Your task to perform on an android device: change keyboard looks Image 0: 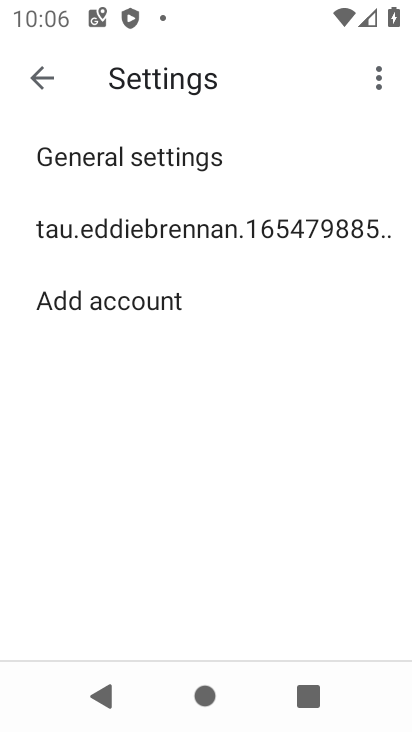
Step 0: press back button
Your task to perform on an android device: change keyboard looks Image 1: 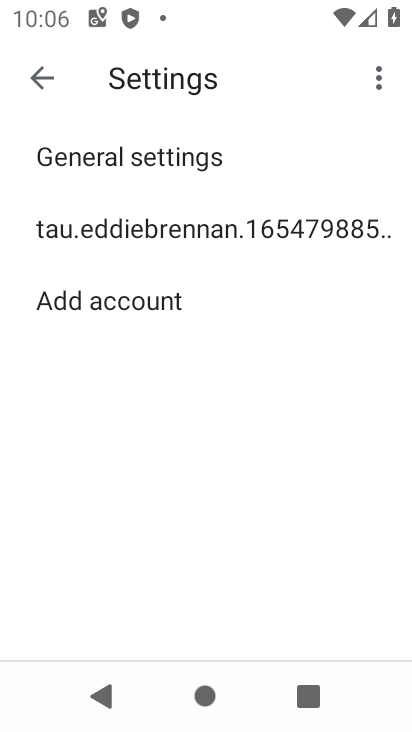
Step 1: press back button
Your task to perform on an android device: change keyboard looks Image 2: 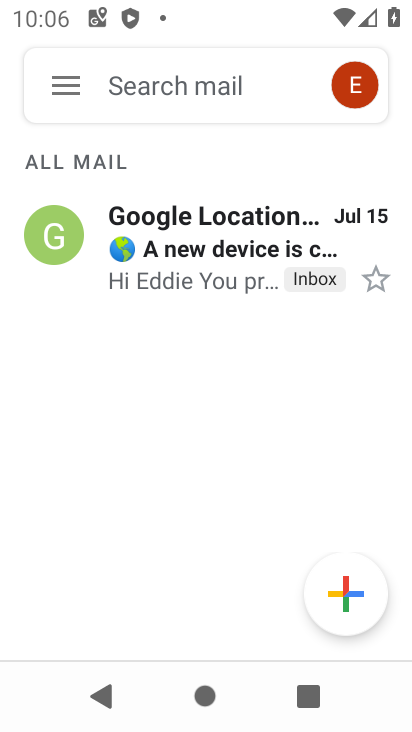
Step 2: press back button
Your task to perform on an android device: change keyboard looks Image 3: 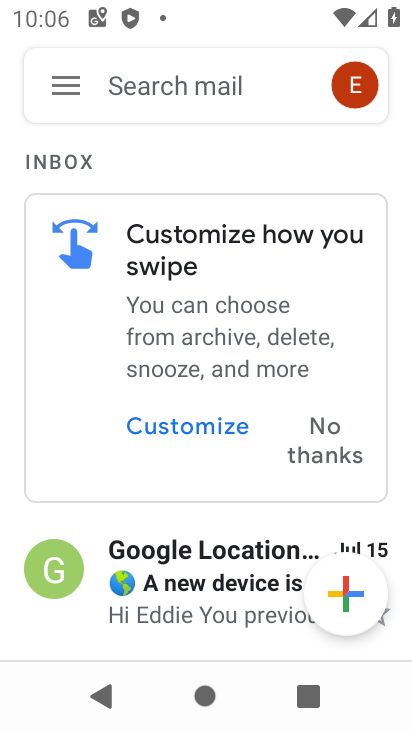
Step 3: press back button
Your task to perform on an android device: change keyboard looks Image 4: 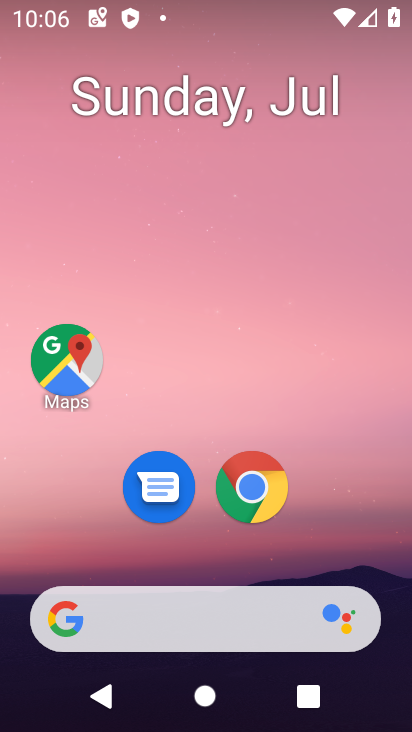
Step 4: drag from (101, 552) to (153, 65)
Your task to perform on an android device: change keyboard looks Image 5: 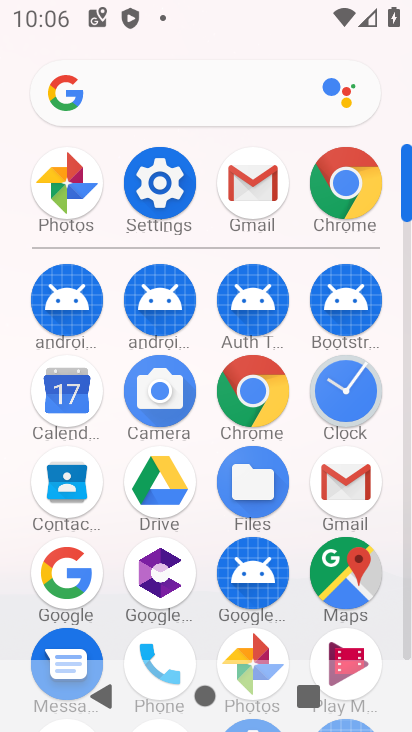
Step 5: click (135, 180)
Your task to perform on an android device: change keyboard looks Image 6: 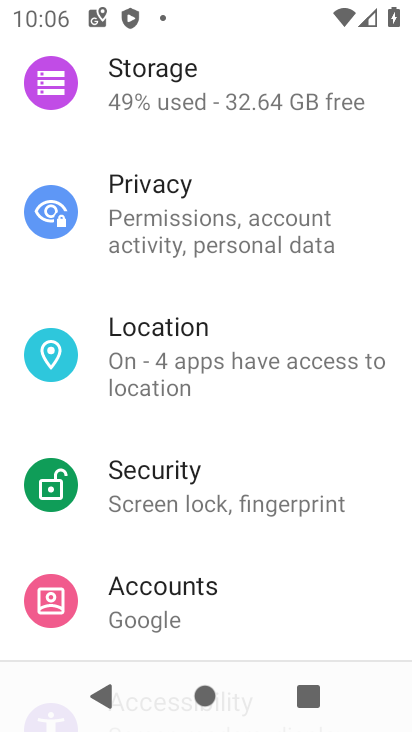
Step 6: drag from (194, 635) to (284, 3)
Your task to perform on an android device: change keyboard looks Image 7: 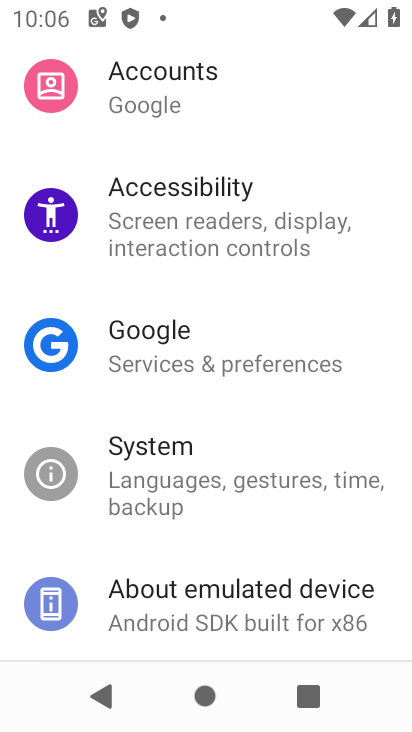
Step 7: drag from (184, 616) to (261, 20)
Your task to perform on an android device: change keyboard looks Image 8: 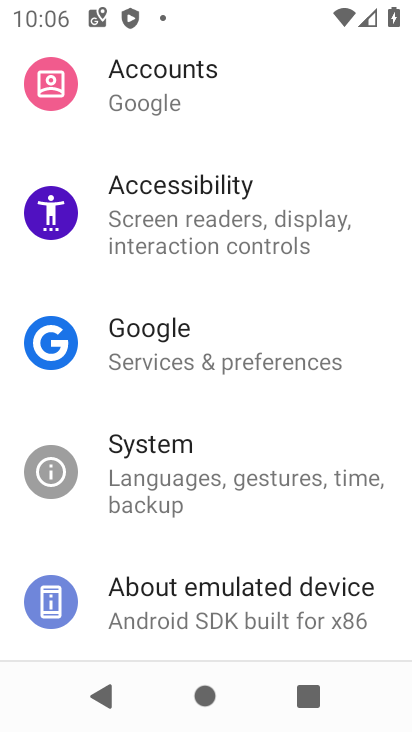
Step 8: click (146, 466)
Your task to perform on an android device: change keyboard looks Image 9: 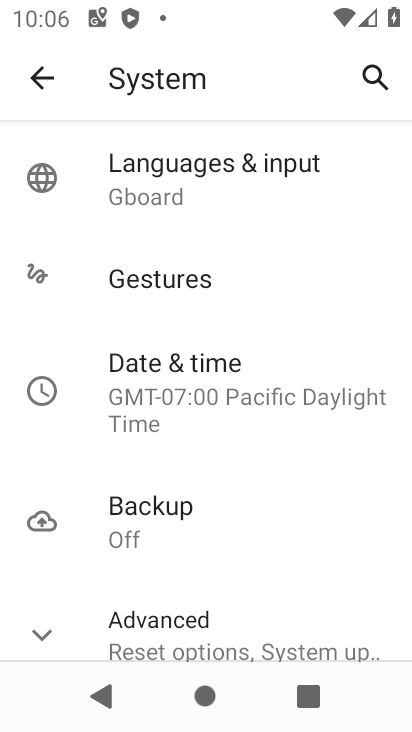
Step 9: click (181, 188)
Your task to perform on an android device: change keyboard looks Image 10: 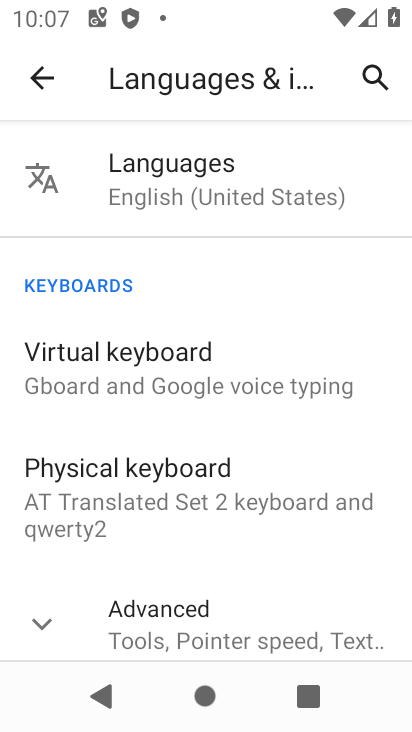
Step 10: click (146, 365)
Your task to perform on an android device: change keyboard looks Image 11: 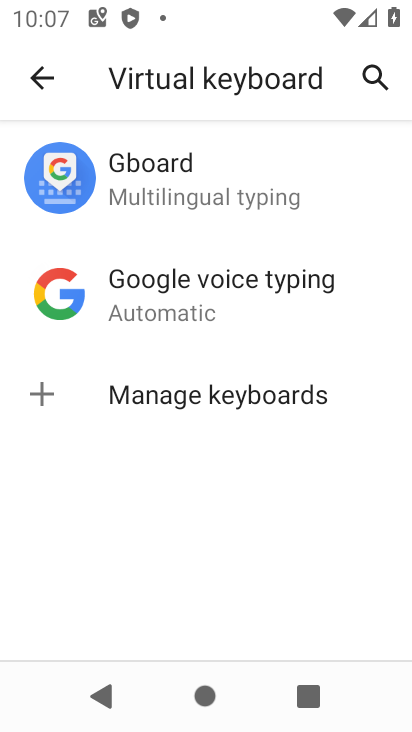
Step 11: click (166, 183)
Your task to perform on an android device: change keyboard looks Image 12: 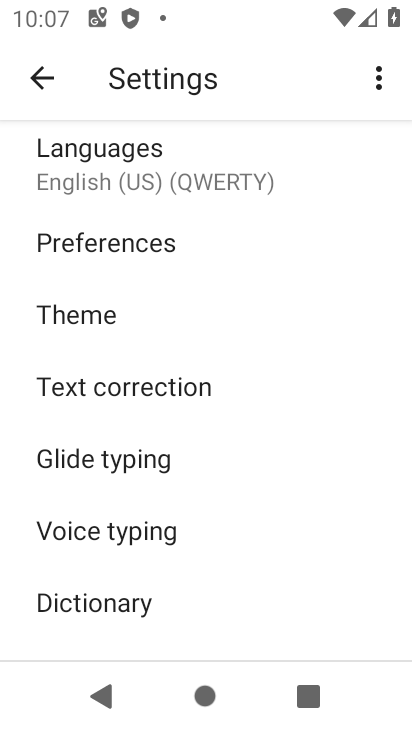
Step 12: click (104, 328)
Your task to perform on an android device: change keyboard looks Image 13: 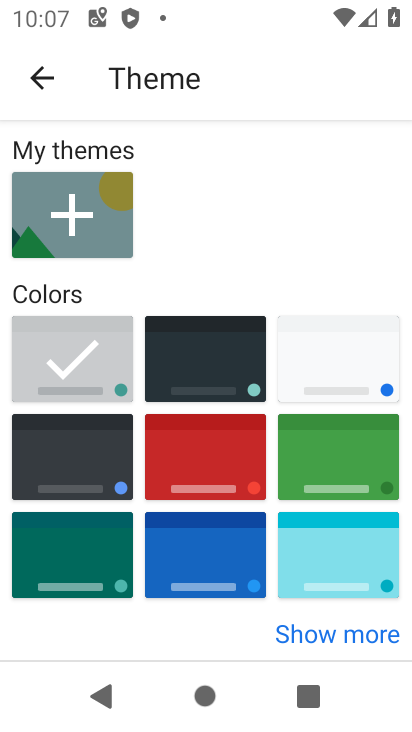
Step 13: click (341, 472)
Your task to perform on an android device: change keyboard looks Image 14: 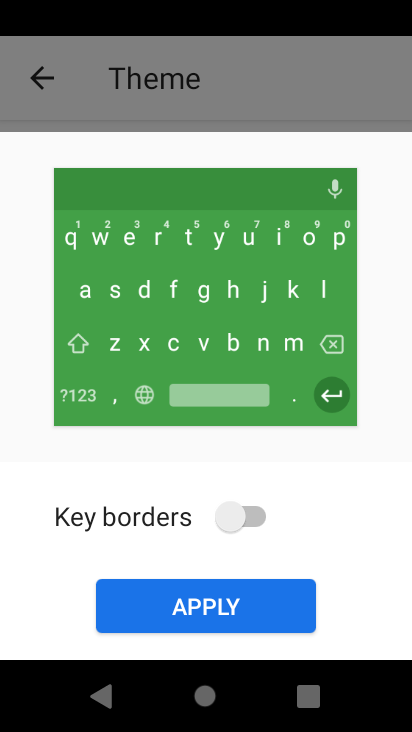
Step 14: click (178, 604)
Your task to perform on an android device: change keyboard looks Image 15: 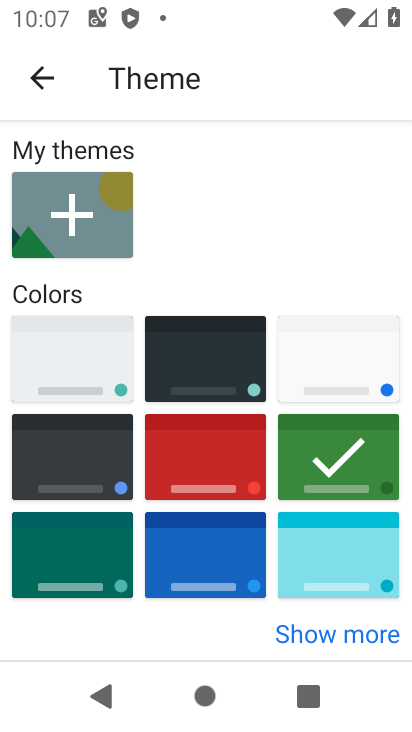
Step 15: task complete